Your task to perform on an android device: What's the weather going to be this weekend? Image 0: 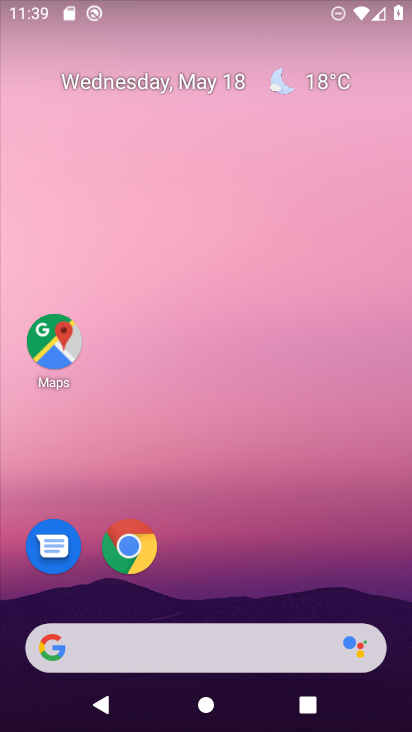
Step 0: click (278, 74)
Your task to perform on an android device: What's the weather going to be this weekend? Image 1: 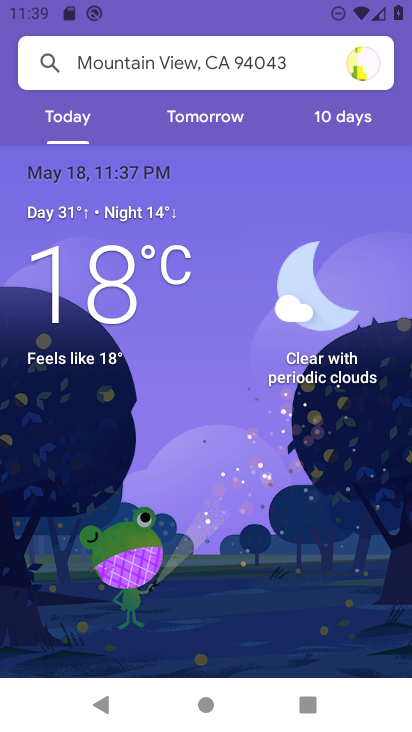
Step 1: click (339, 117)
Your task to perform on an android device: What's the weather going to be this weekend? Image 2: 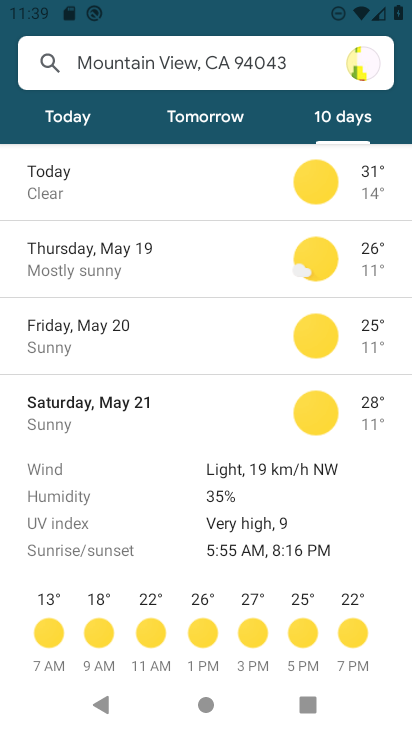
Step 2: task complete